Your task to perform on an android device: Open Google Chrome and open the bookmarks view Image 0: 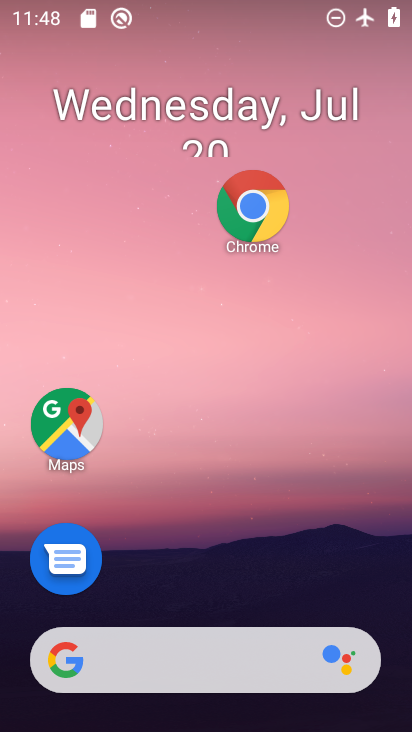
Step 0: drag from (221, 548) to (230, 160)
Your task to perform on an android device: Open Google Chrome and open the bookmarks view Image 1: 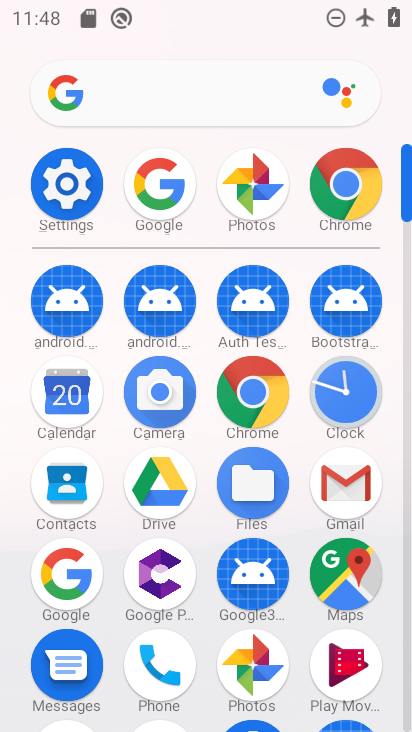
Step 1: click (249, 385)
Your task to perform on an android device: Open Google Chrome and open the bookmarks view Image 2: 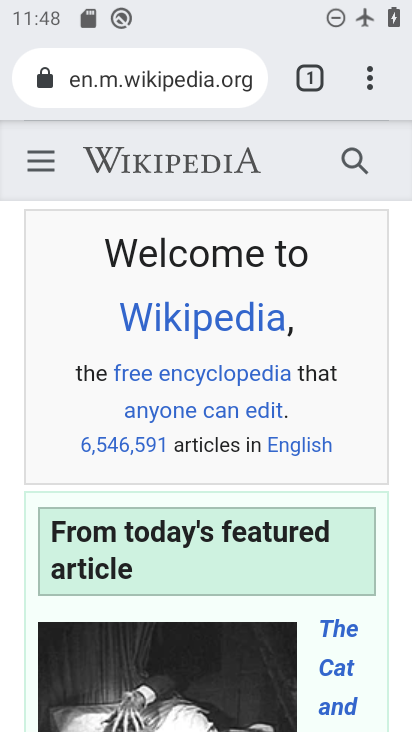
Step 2: click (369, 87)
Your task to perform on an android device: Open Google Chrome and open the bookmarks view Image 3: 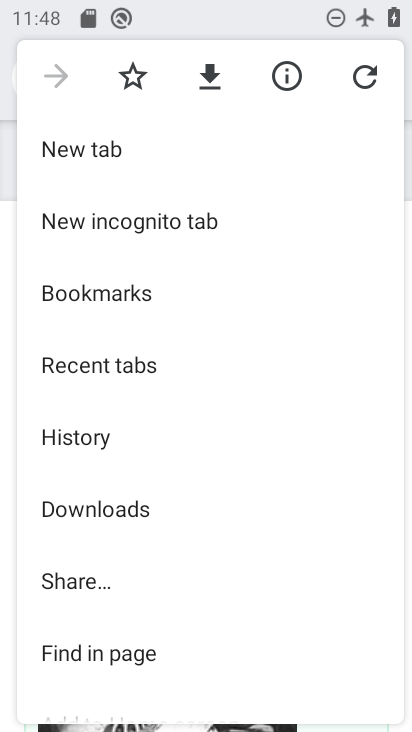
Step 3: click (138, 288)
Your task to perform on an android device: Open Google Chrome and open the bookmarks view Image 4: 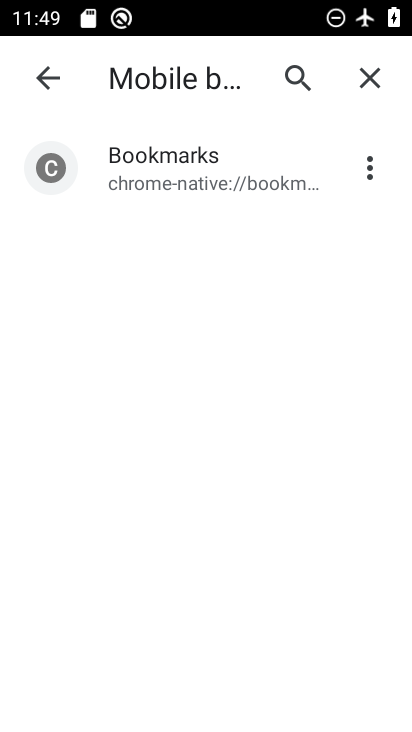
Step 4: task complete